Your task to perform on an android device: turn smart compose on in the gmail app Image 0: 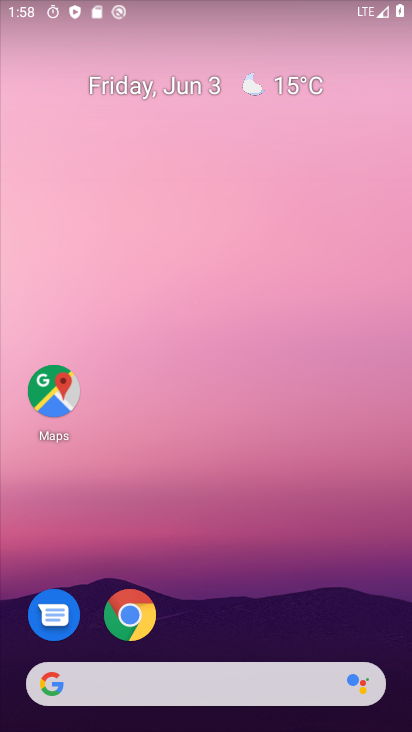
Step 0: drag from (203, 641) to (318, 78)
Your task to perform on an android device: turn smart compose on in the gmail app Image 1: 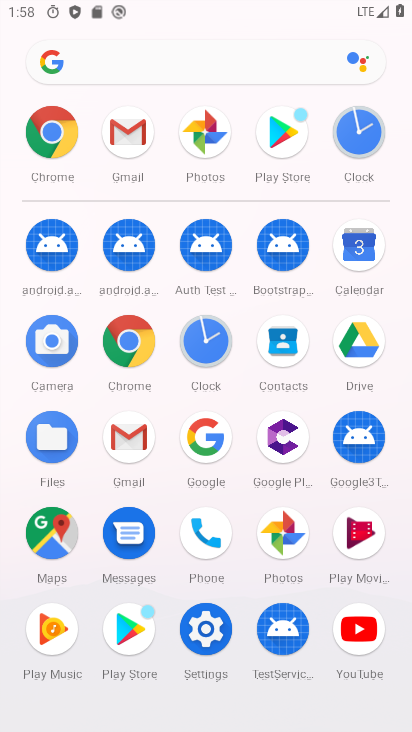
Step 1: click (122, 459)
Your task to perform on an android device: turn smart compose on in the gmail app Image 2: 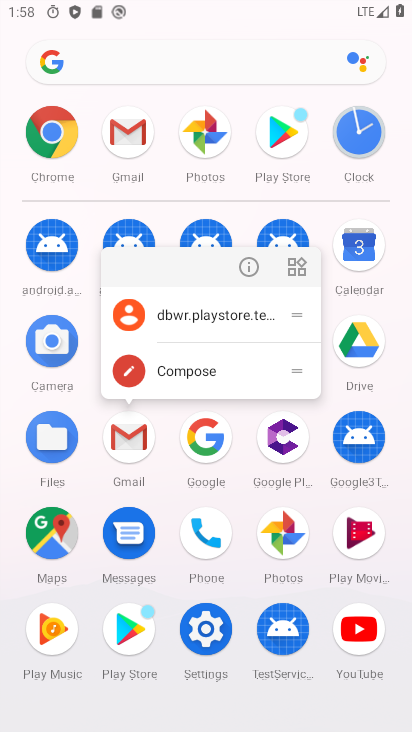
Step 2: click (250, 261)
Your task to perform on an android device: turn smart compose on in the gmail app Image 3: 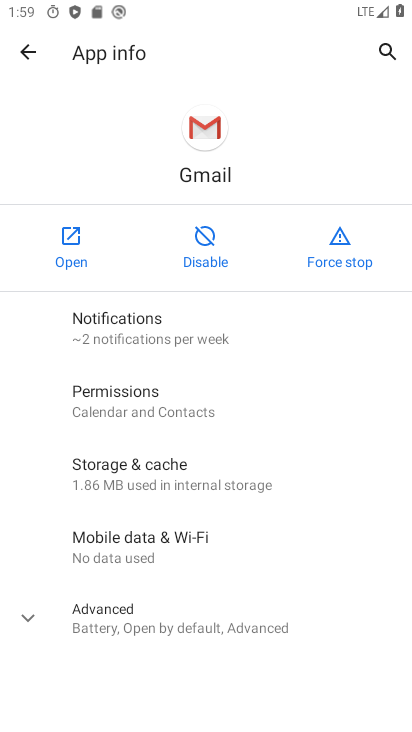
Step 3: click (71, 259)
Your task to perform on an android device: turn smart compose on in the gmail app Image 4: 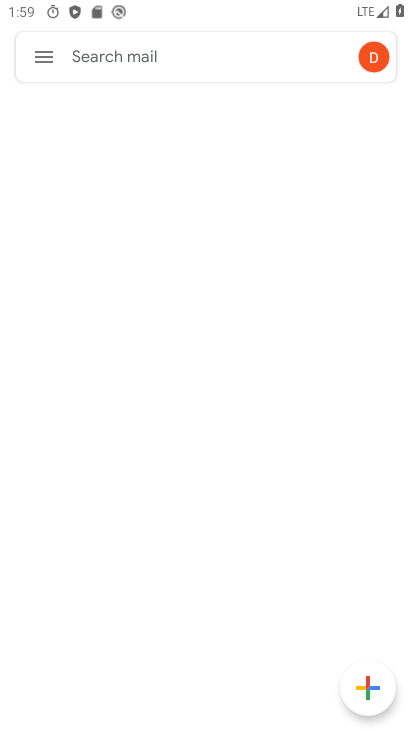
Step 4: click (47, 53)
Your task to perform on an android device: turn smart compose on in the gmail app Image 5: 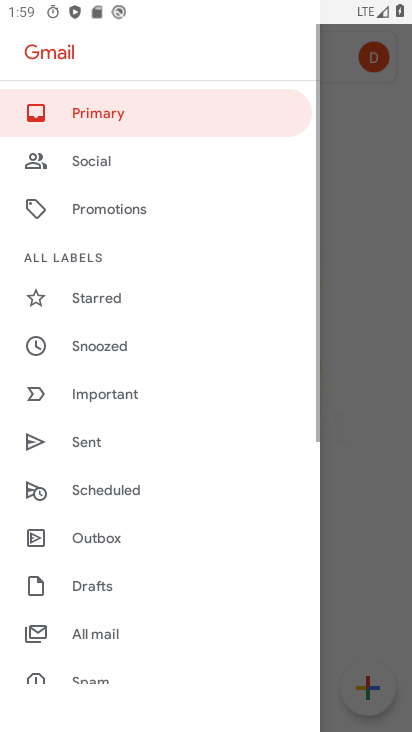
Step 5: drag from (108, 547) to (211, 181)
Your task to perform on an android device: turn smart compose on in the gmail app Image 6: 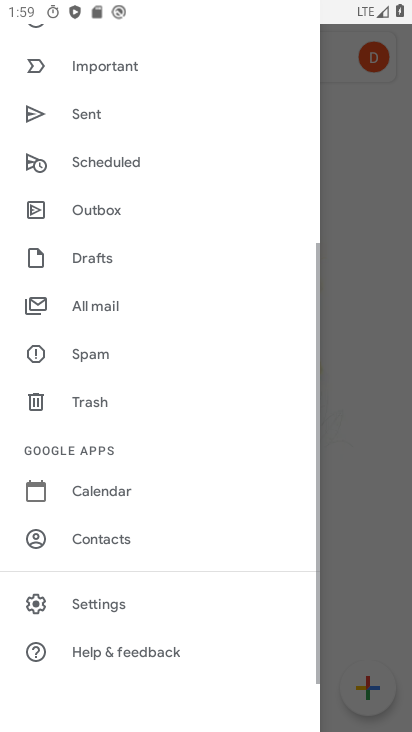
Step 6: click (117, 602)
Your task to perform on an android device: turn smart compose on in the gmail app Image 7: 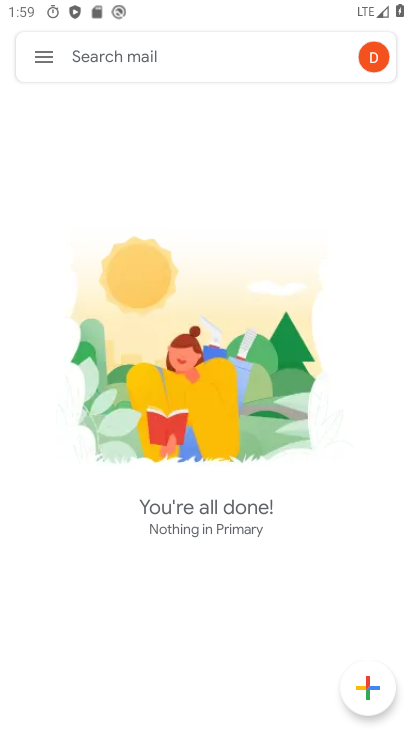
Step 7: drag from (121, 588) to (181, 99)
Your task to perform on an android device: turn smart compose on in the gmail app Image 8: 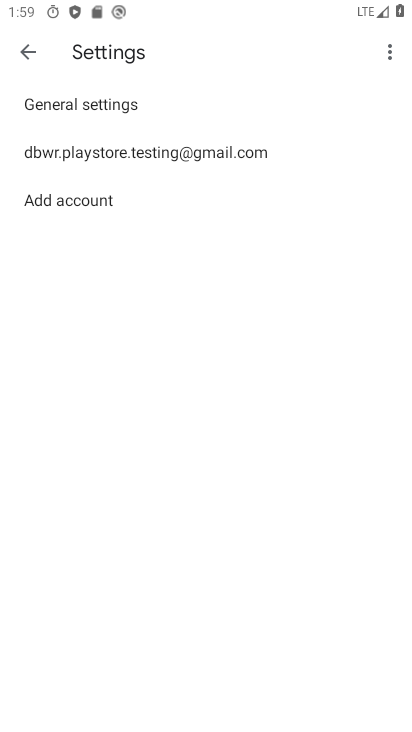
Step 8: click (135, 132)
Your task to perform on an android device: turn smart compose on in the gmail app Image 9: 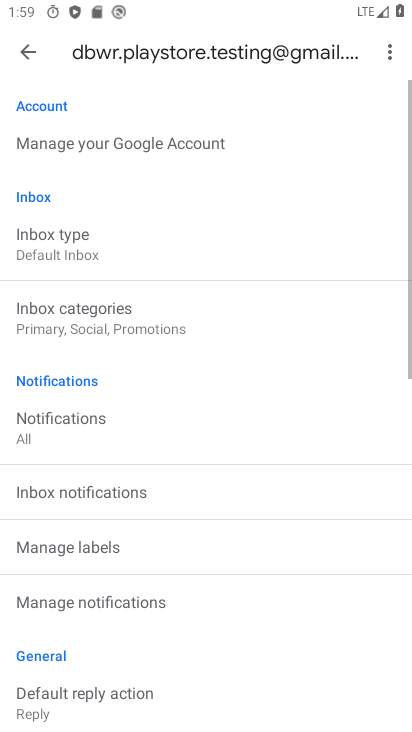
Step 9: task complete